Your task to perform on an android device: set the stopwatch Image 0: 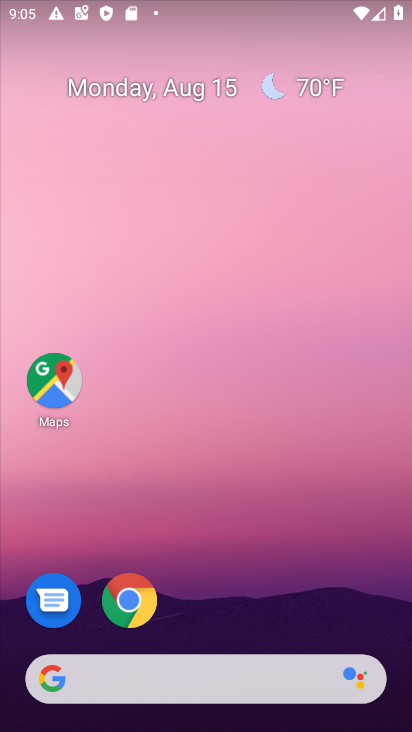
Step 0: drag from (225, 638) to (239, 152)
Your task to perform on an android device: set the stopwatch Image 1: 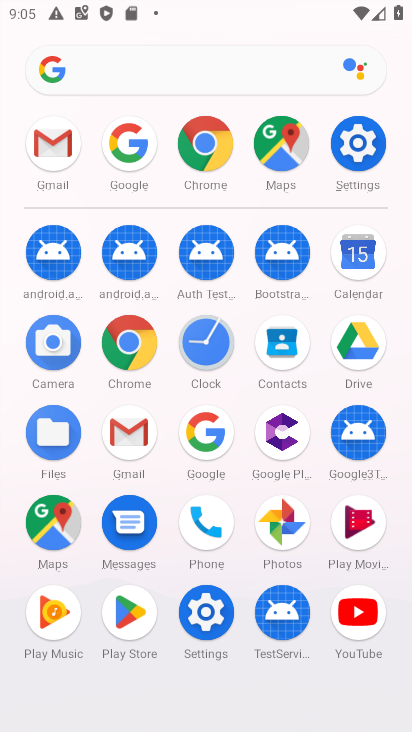
Step 1: click (213, 339)
Your task to perform on an android device: set the stopwatch Image 2: 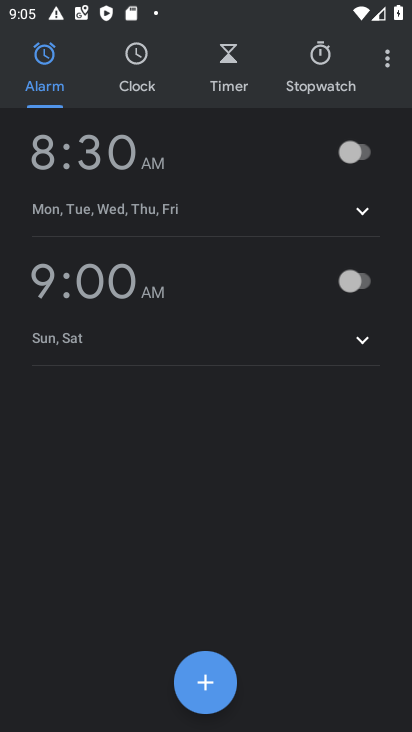
Step 2: click (322, 58)
Your task to perform on an android device: set the stopwatch Image 3: 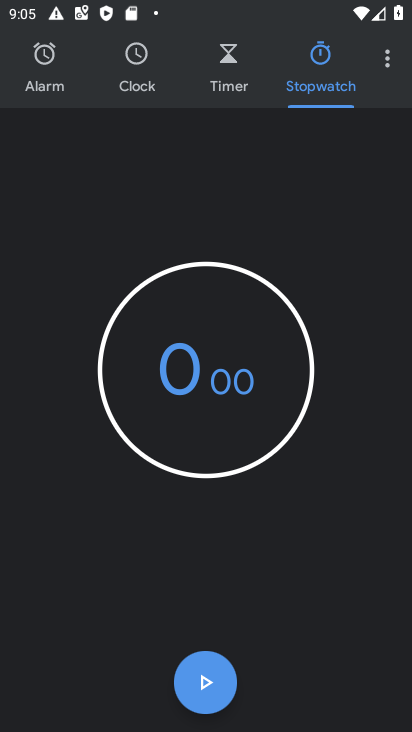
Step 3: click (192, 391)
Your task to perform on an android device: set the stopwatch Image 4: 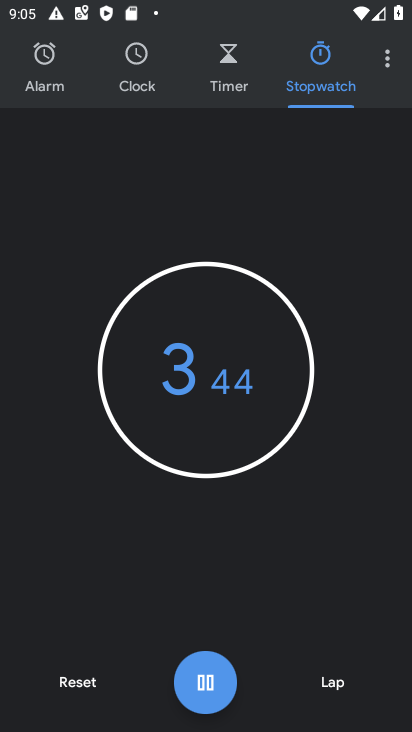
Step 4: type "uu"
Your task to perform on an android device: set the stopwatch Image 5: 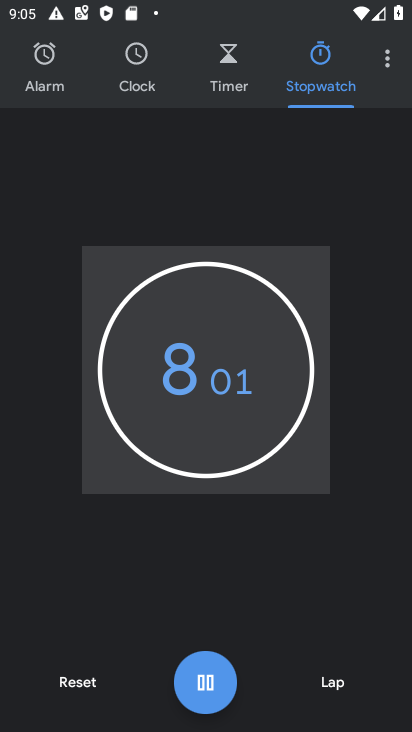
Step 5: task complete